Your task to perform on an android device: Go to Amazon Image 0: 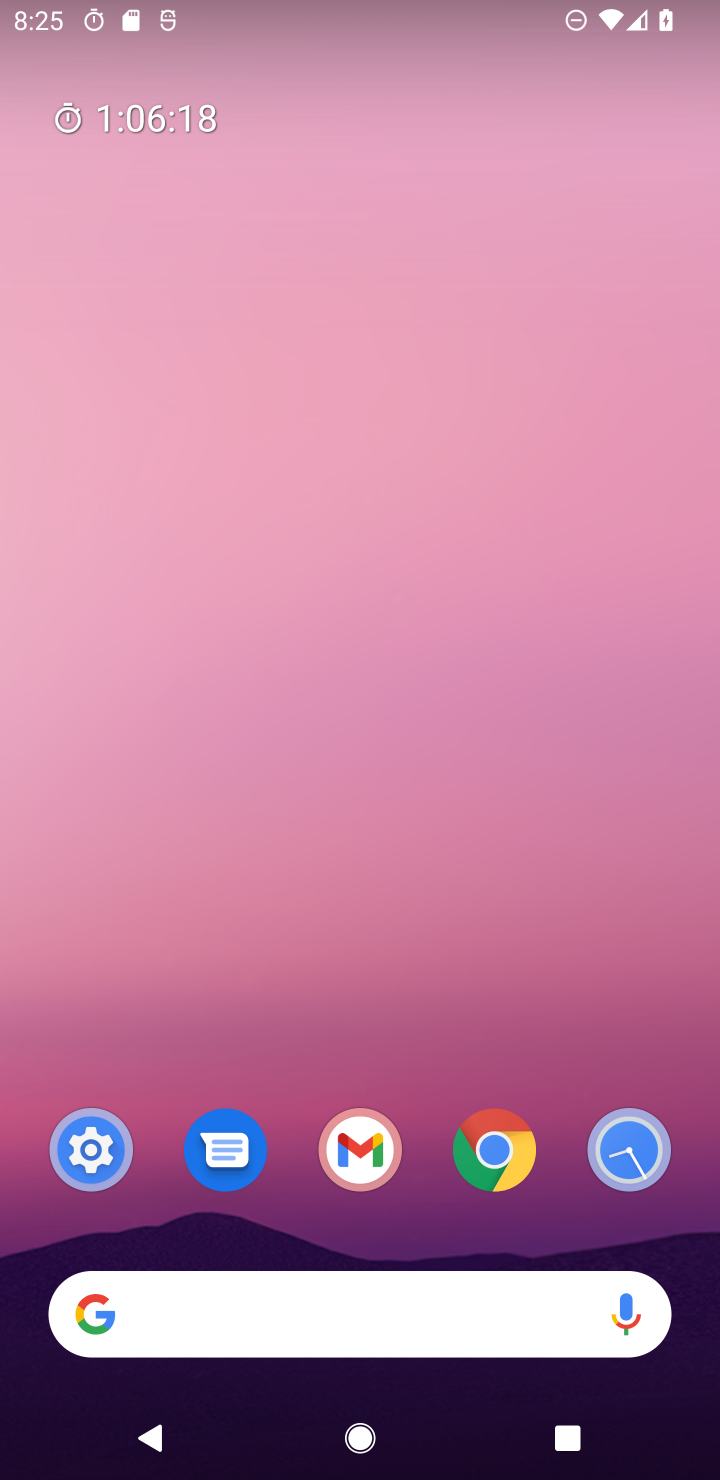
Step 0: drag from (642, 1299) to (709, 107)
Your task to perform on an android device: Go to Amazon Image 1: 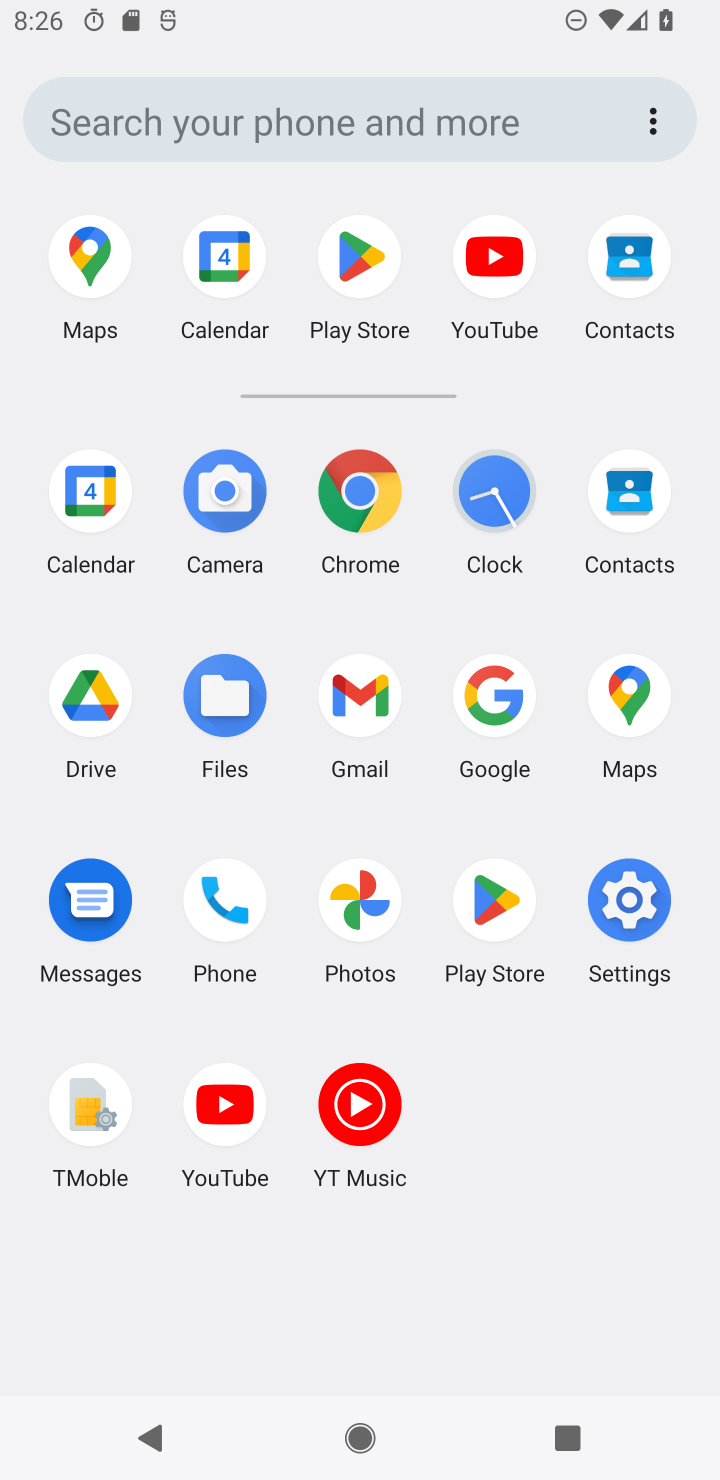
Step 1: click (373, 490)
Your task to perform on an android device: Go to Amazon Image 2: 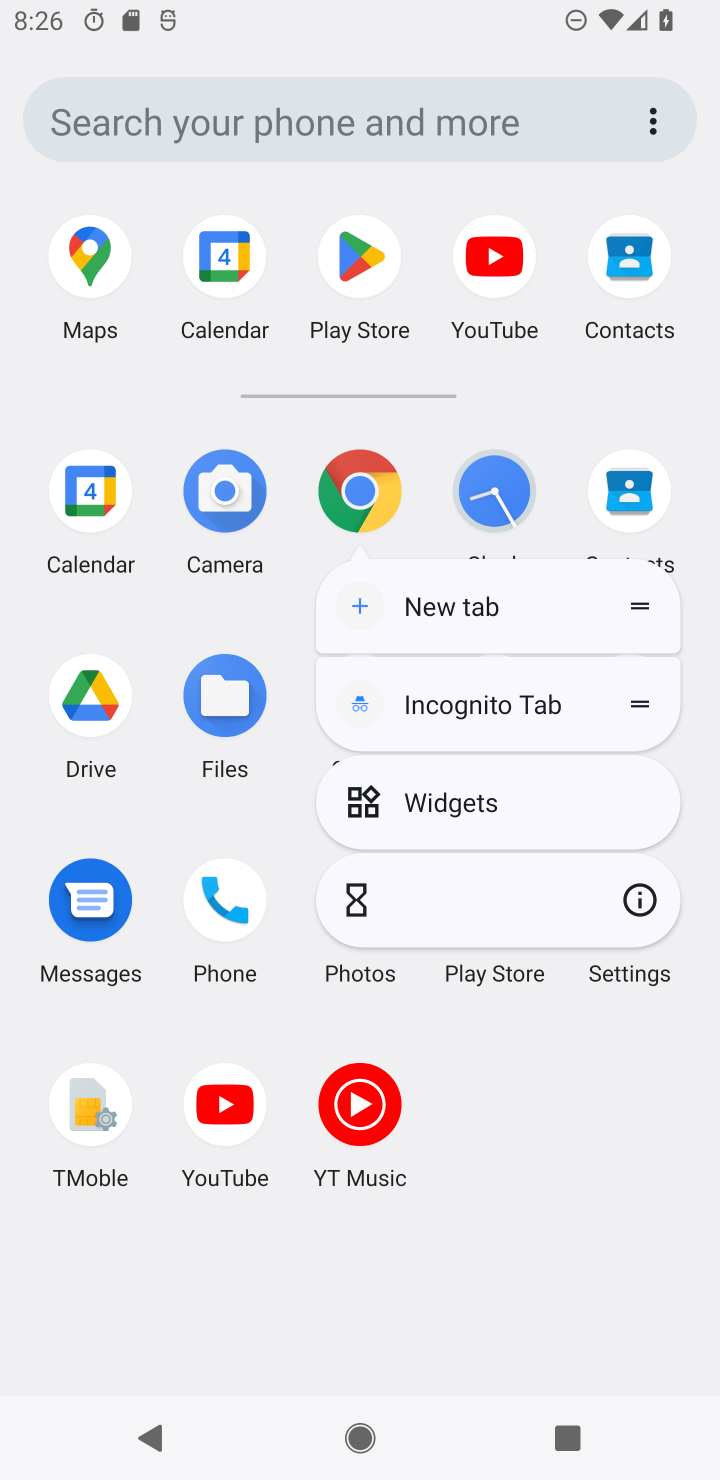
Step 2: click (373, 490)
Your task to perform on an android device: Go to Amazon Image 3: 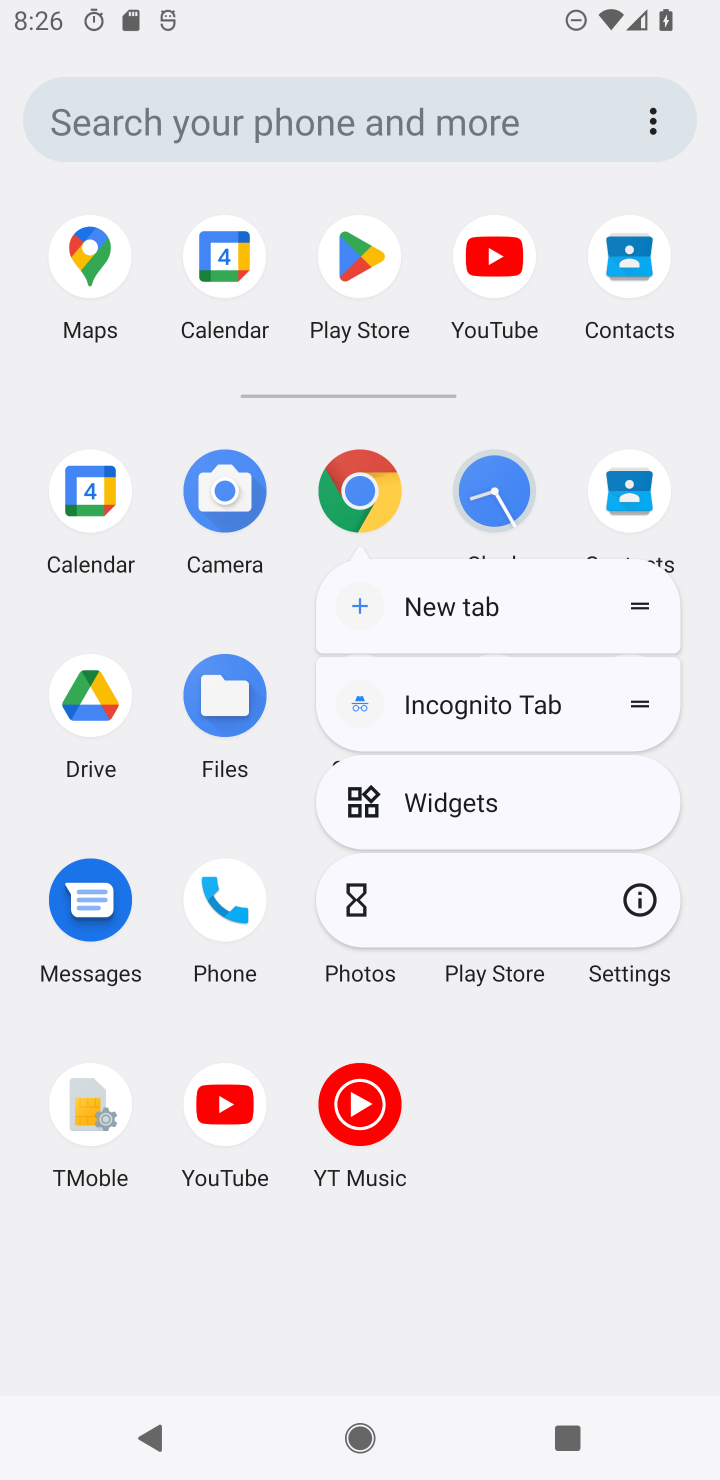
Step 3: click (373, 490)
Your task to perform on an android device: Go to Amazon Image 4: 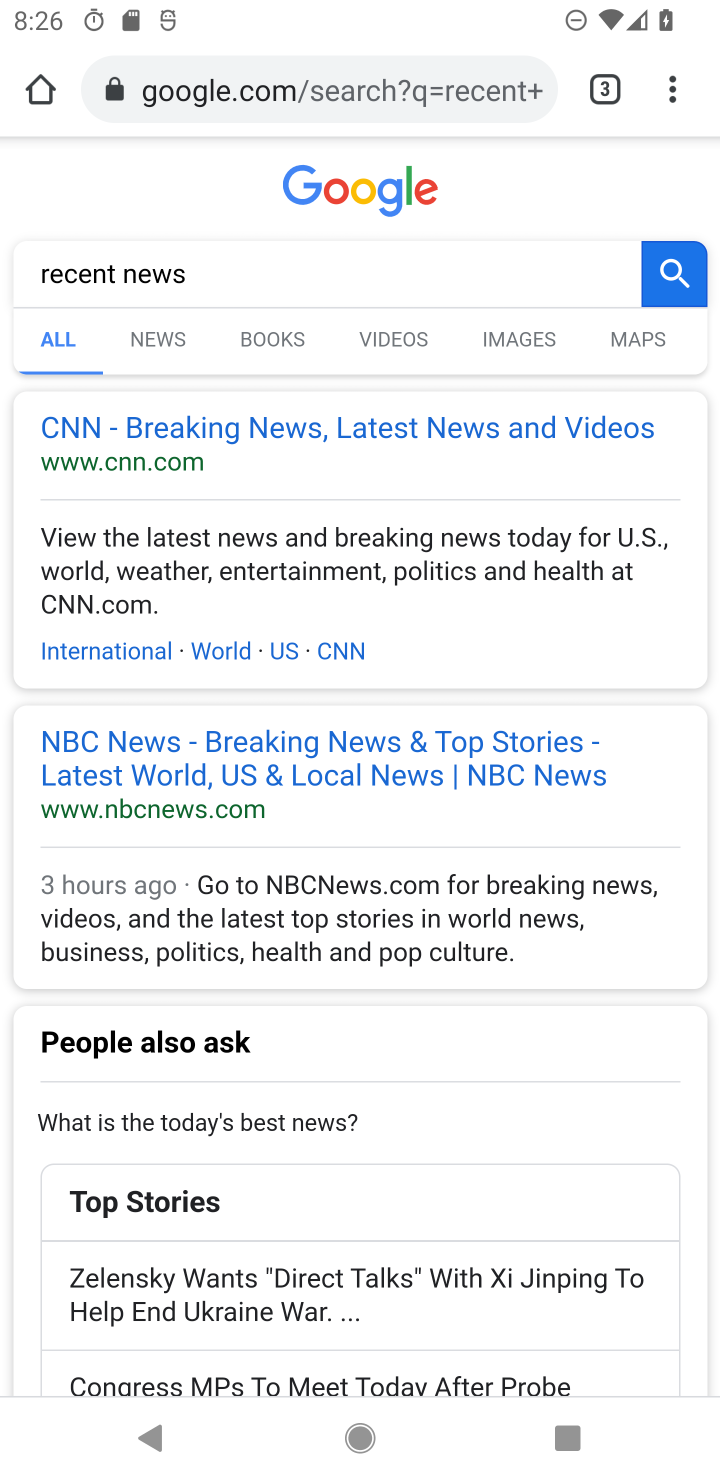
Step 4: click (412, 99)
Your task to perform on an android device: Go to Amazon Image 5: 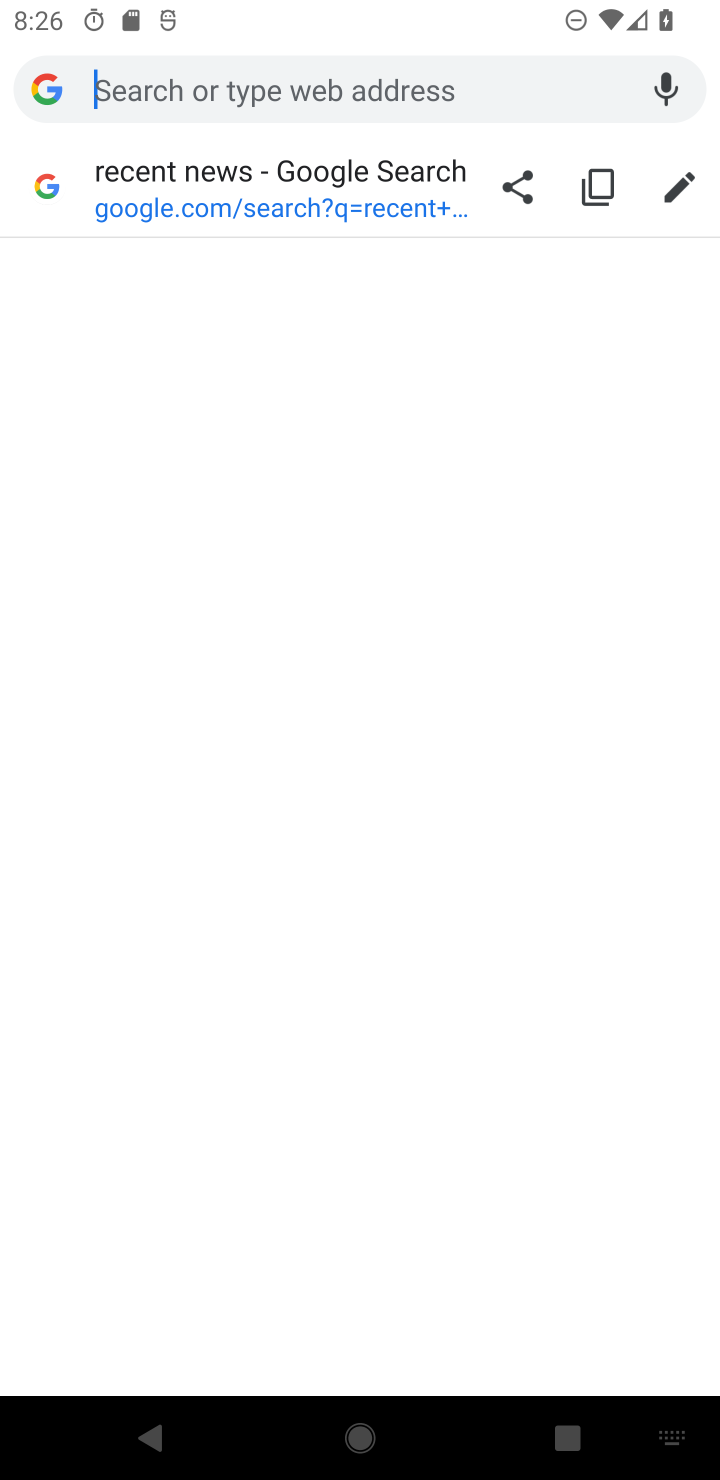
Step 5: type "amazon"
Your task to perform on an android device: Go to Amazon Image 6: 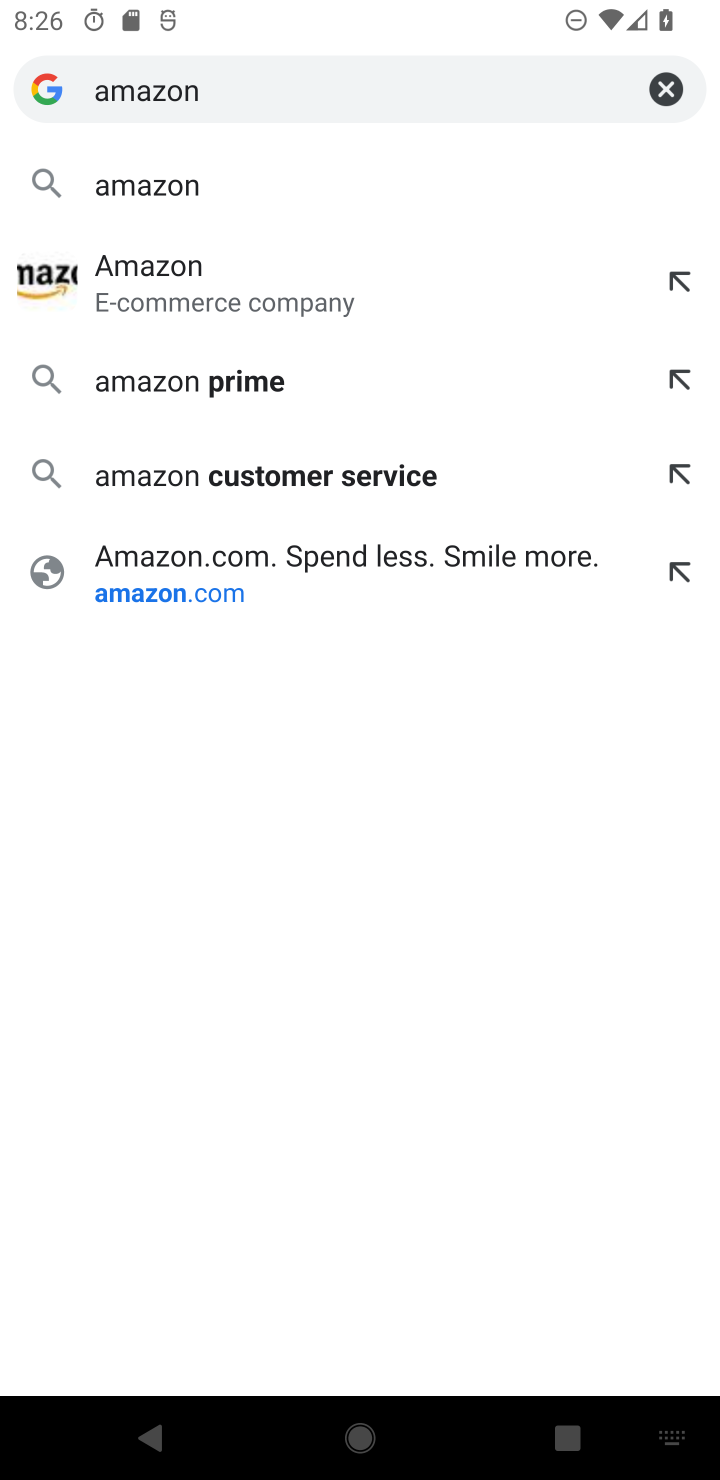
Step 6: click (199, 288)
Your task to perform on an android device: Go to Amazon Image 7: 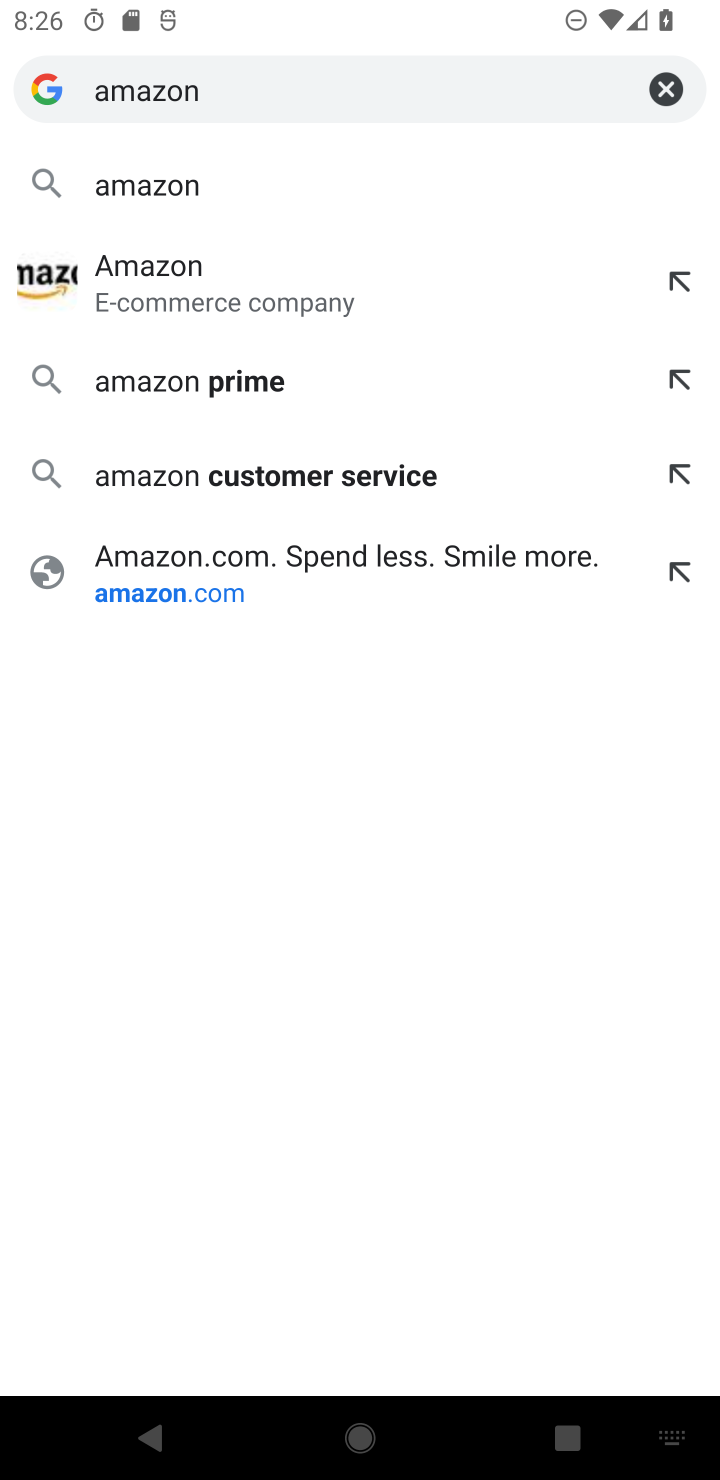
Step 7: task complete